Your task to perform on an android device: Open Android settings Image 0: 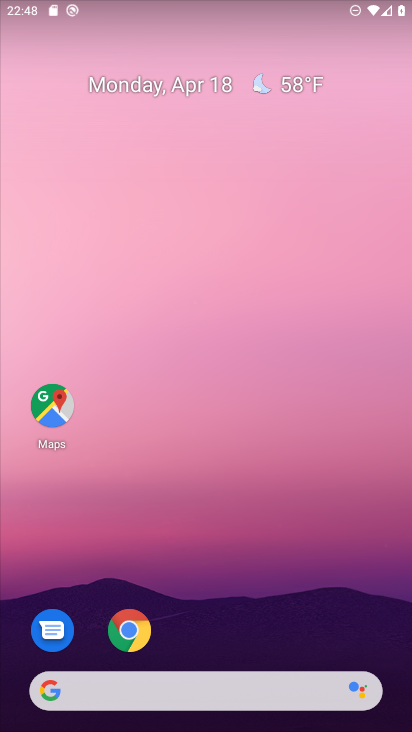
Step 0: drag from (233, 662) to (135, 34)
Your task to perform on an android device: Open Android settings Image 1: 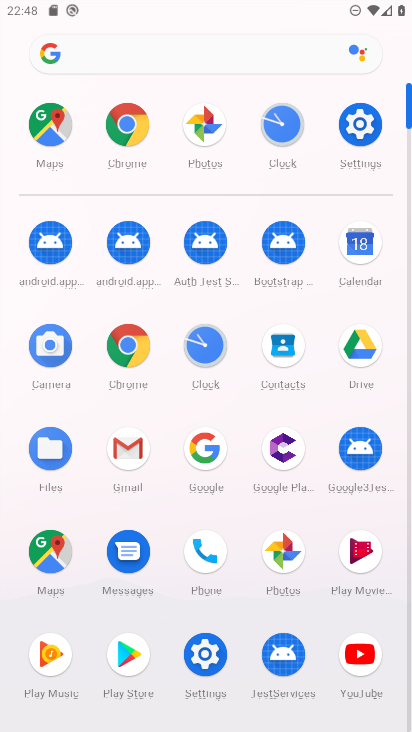
Step 1: click (351, 133)
Your task to perform on an android device: Open Android settings Image 2: 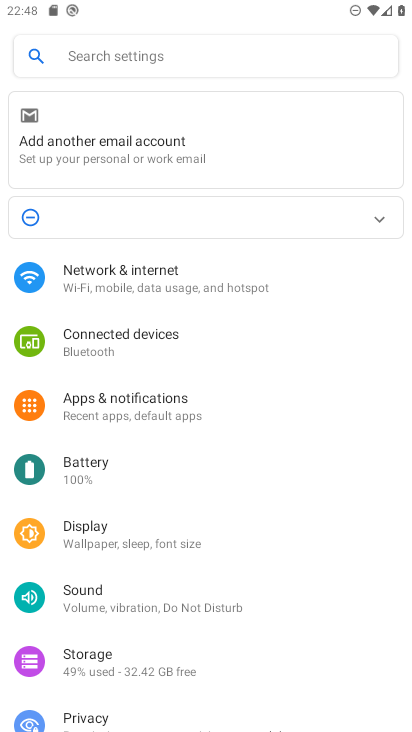
Step 2: task complete